Your task to perform on an android device: Show me recent news Image 0: 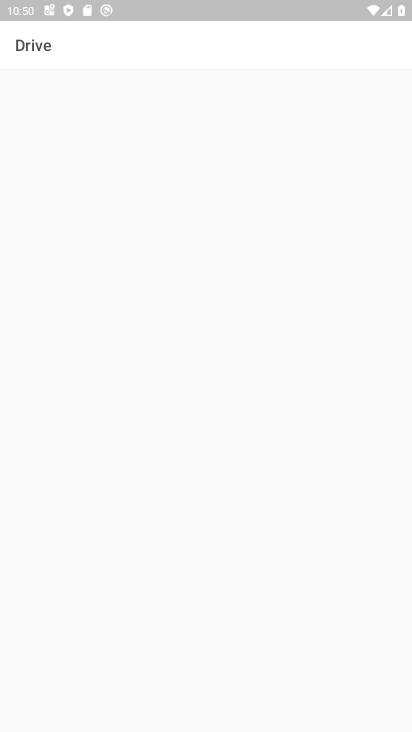
Step 0: press home button
Your task to perform on an android device: Show me recent news Image 1: 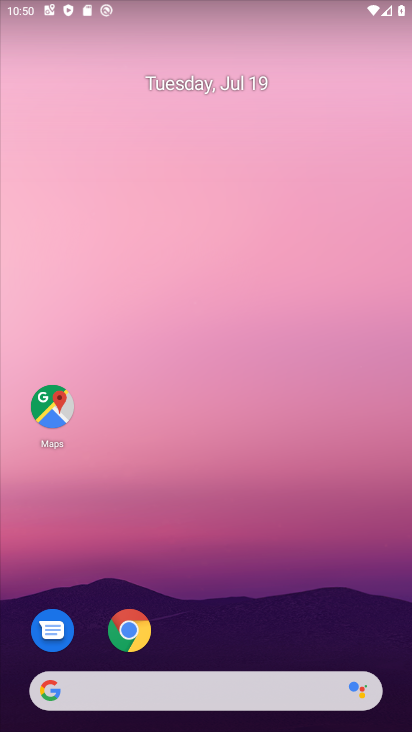
Step 1: click (114, 634)
Your task to perform on an android device: Show me recent news Image 2: 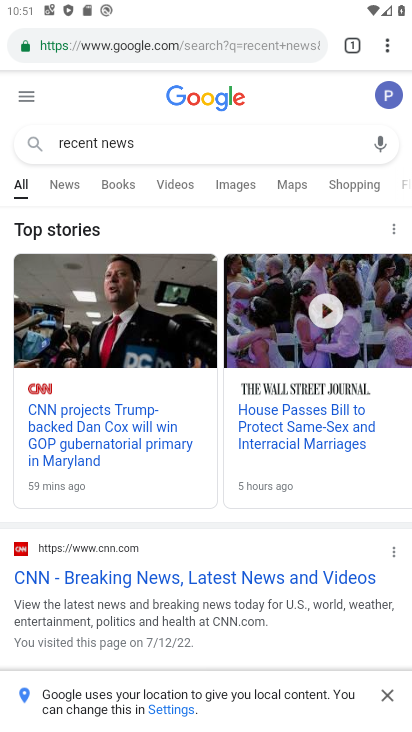
Step 2: task complete